Your task to perform on an android device: Open Yahoo.com Image 0: 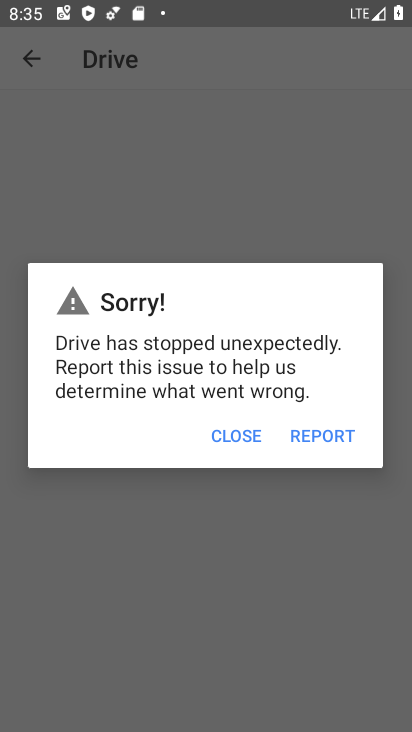
Step 0: click (245, 431)
Your task to perform on an android device: Open Yahoo.com Image 1: 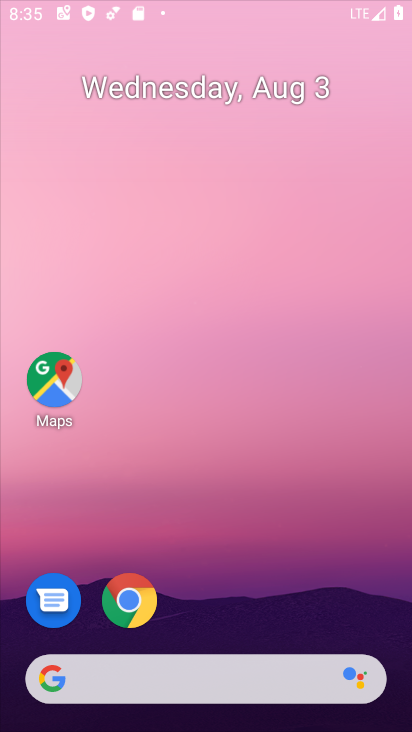
Step 1: press home button
Your task to perform on an android device: Open Yahoo.com Image 2: 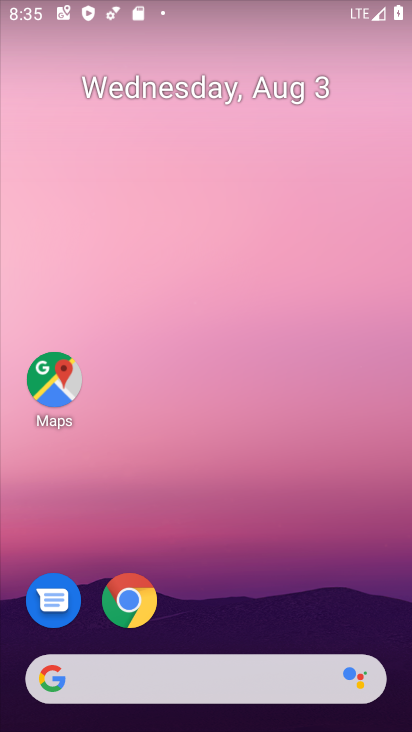
Step 2: click (128, 599)
Your task to perform on an android device: Open Yahoo.com Image 3: 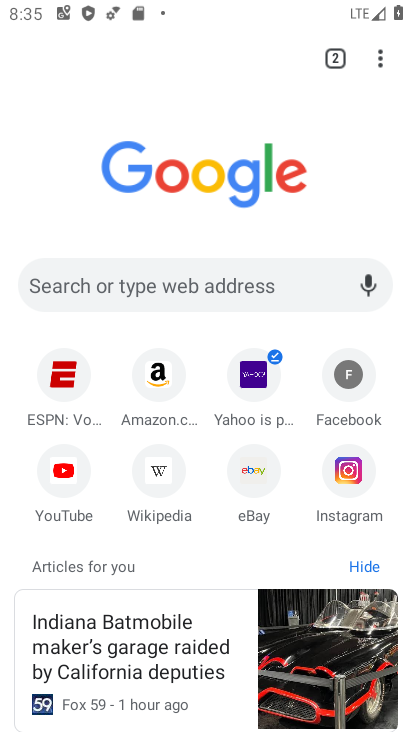
Step 3: click (255, 405)
Your task to perform on an android device: Open Yahoo.com Image 4: 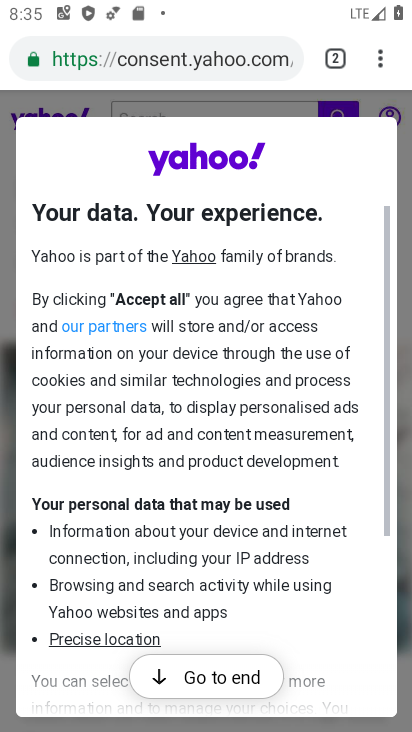
Step 4: task complete